Your task to perform on an android device: Open ESPN.com Image 0: 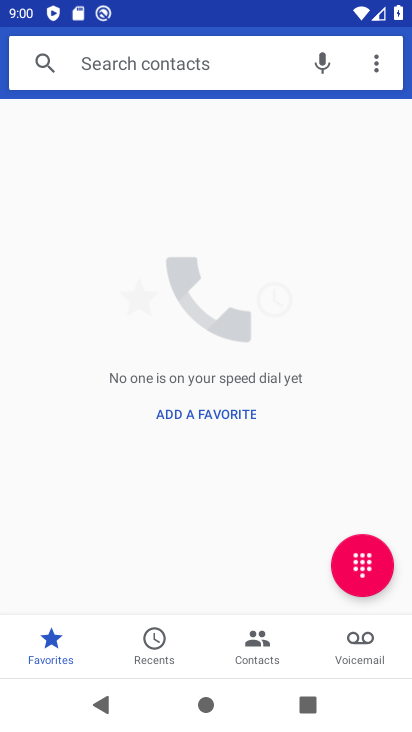
Step 0: press home button
Your task to perform on an android device: Open ESPN.com Image 1: 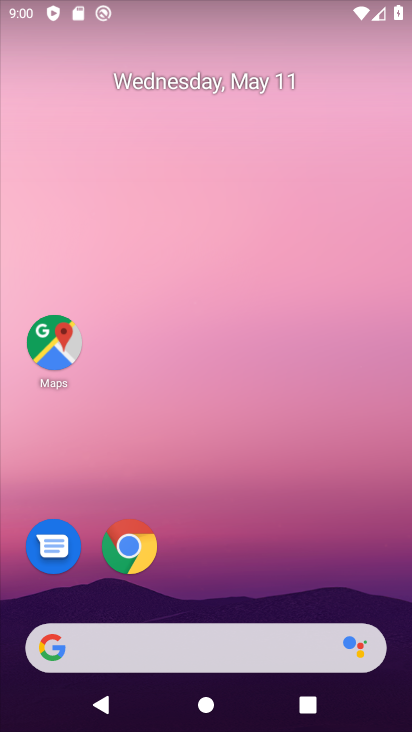
Step 1: click (140, 538)
Your task to perform on an android device: Open ESPN.com Image 2: 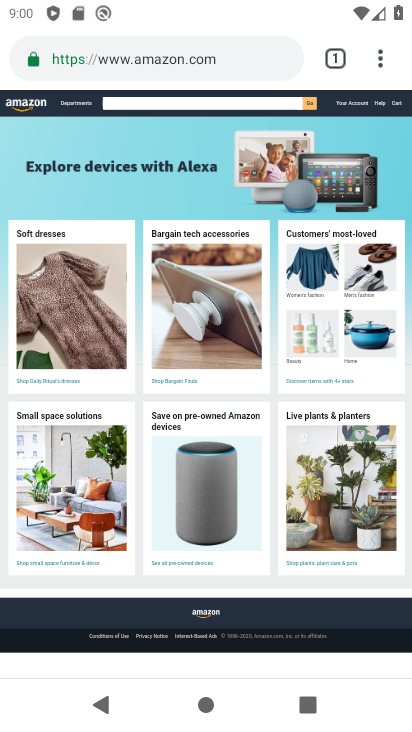
Step 2: click (133, 66)
Your task to perform on an android device: Open ESPN.com Image 3: 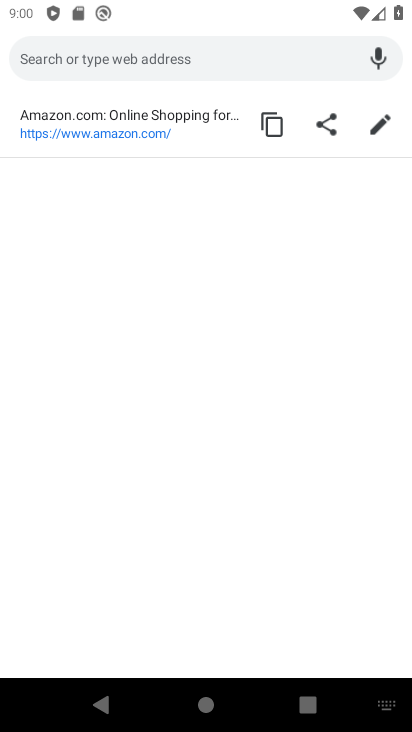
Step 3: type "espn.com"
Your task to perform on an android device: Open ESPN.com Image 4: 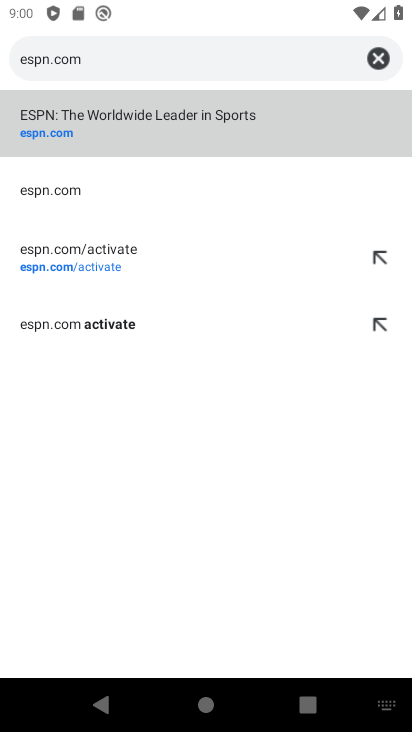
Step 4: click (193, 126)
Your task to perform on an android device: Open ESPN.com Image 5: 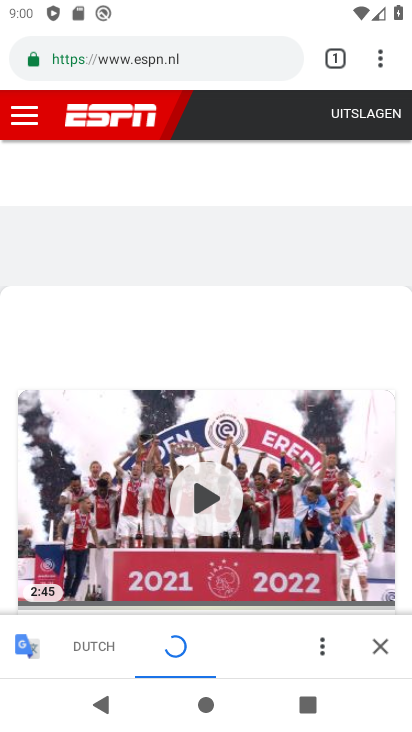
Step 5: task complete